Your task to perform on an android device: Empty the shopping cart on newegg.com. Image 0: 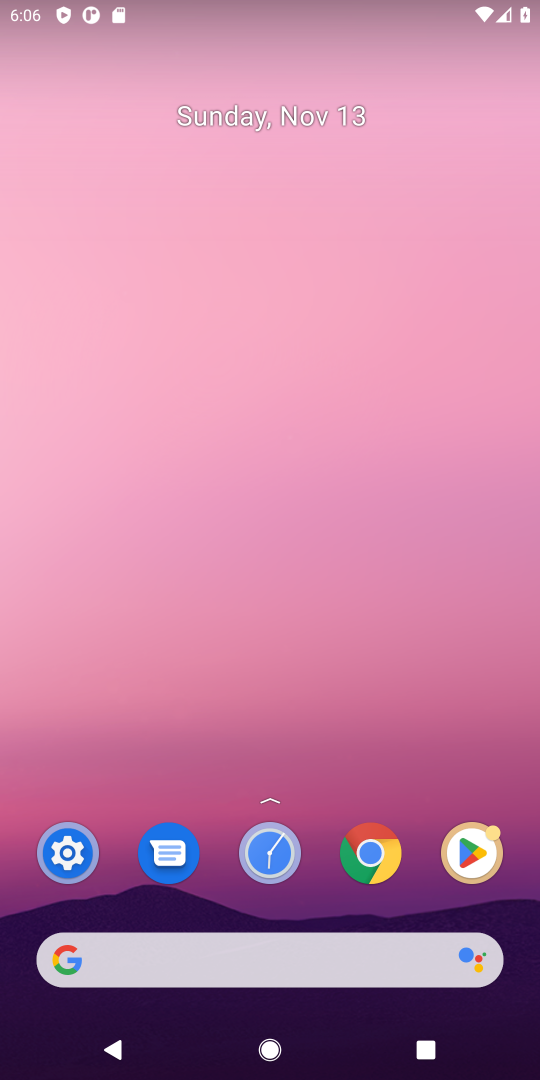
Step 0: press home button
Your task to perform on an android device: Empty the shopping cart on newegg.com. Image 1: 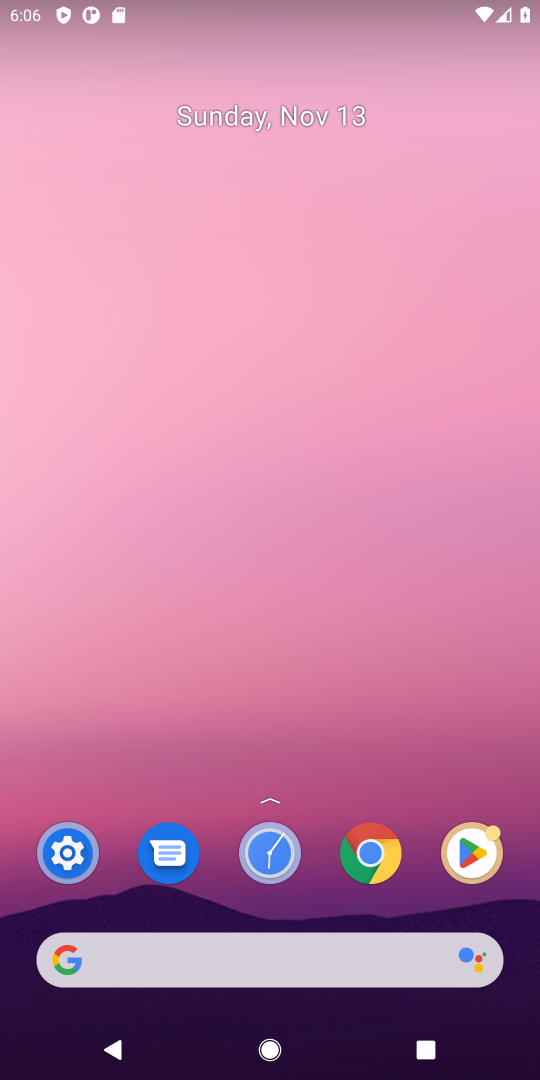
Step 1: click (105, 957)
Your task to perform on an android device: Empty the shopping cart on newegg.com. Image 2: 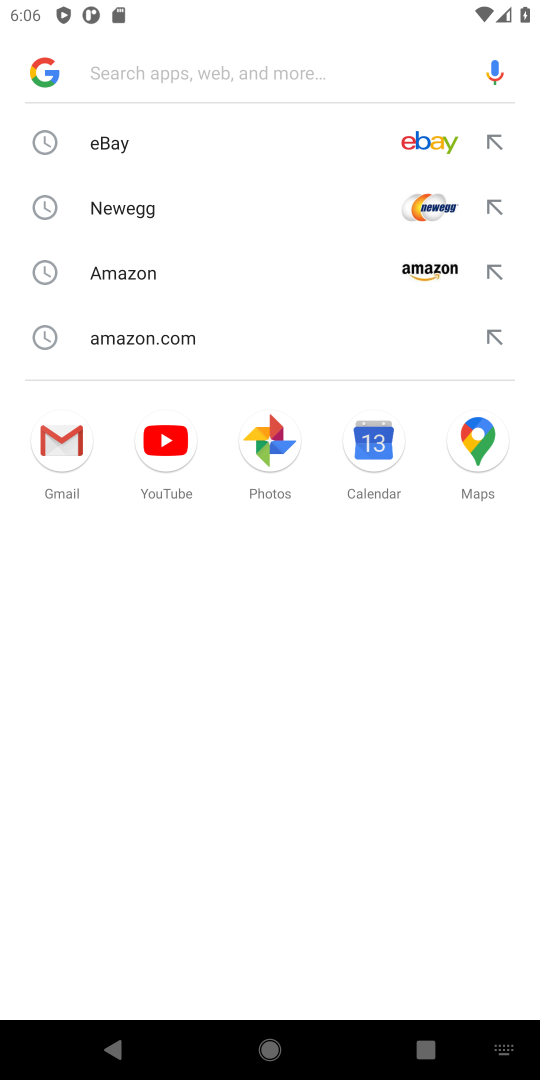
Step 2: type "newegg.com"
Your task to perform on an android device: Empty the shopping cart on newegg.com. Image 3: 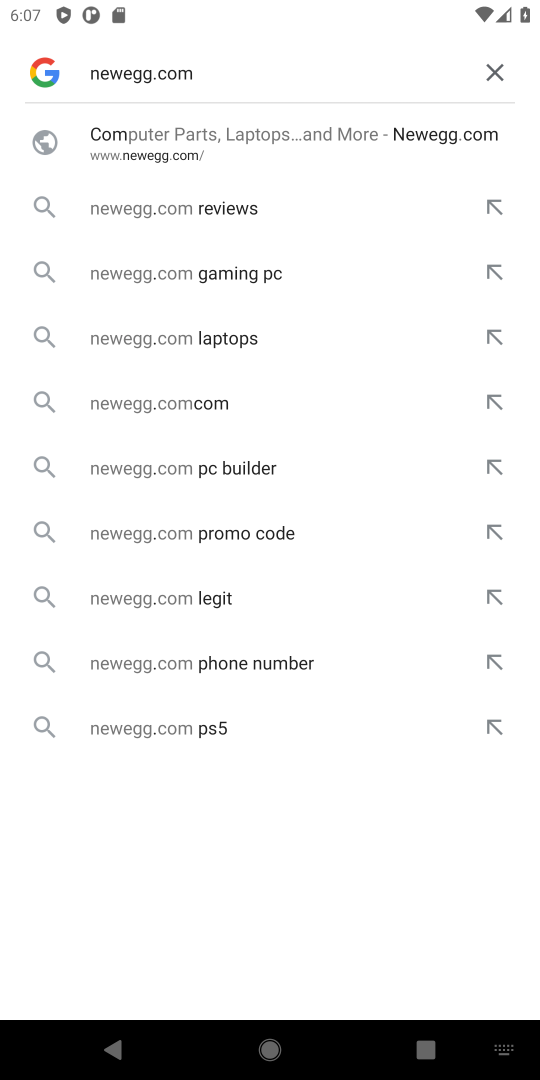
Step 3: press enter
Your task to perform on an android device: Empty the shopping cart on newegg.com. Image 4: 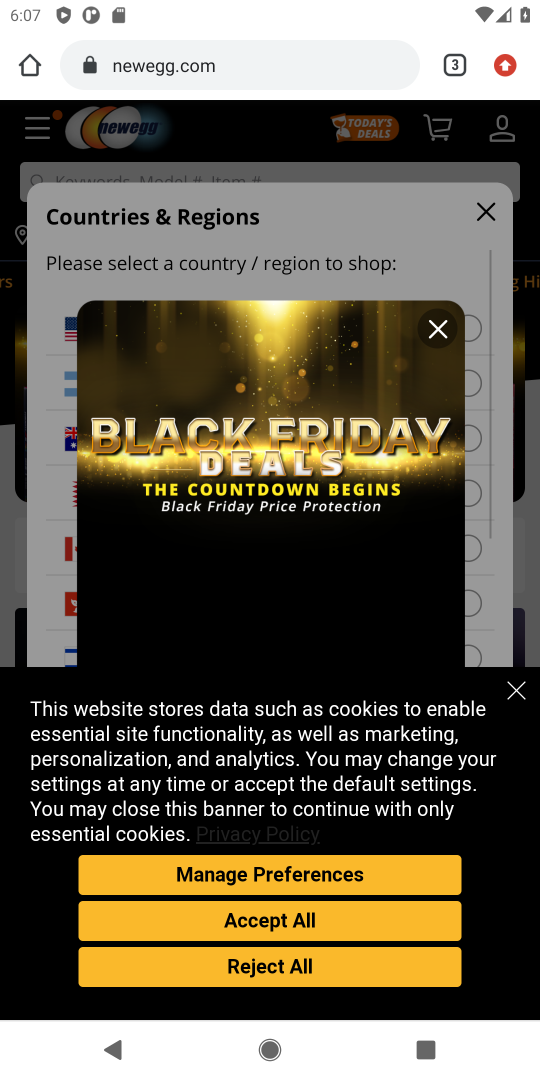
Step 4: click (306, 916)
Your task to perform on an android device: Empty the shopping cart on newegg.com. Image 5: 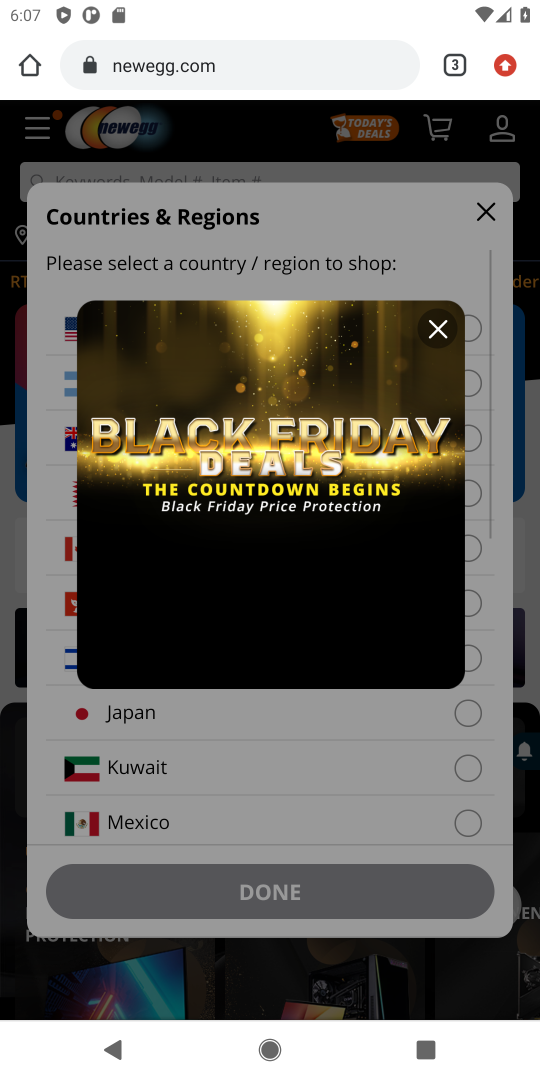
Step 5: click (486, 211)
Your task to perform on an android device: Empty the shopping cart on newegg.com. Image 6: 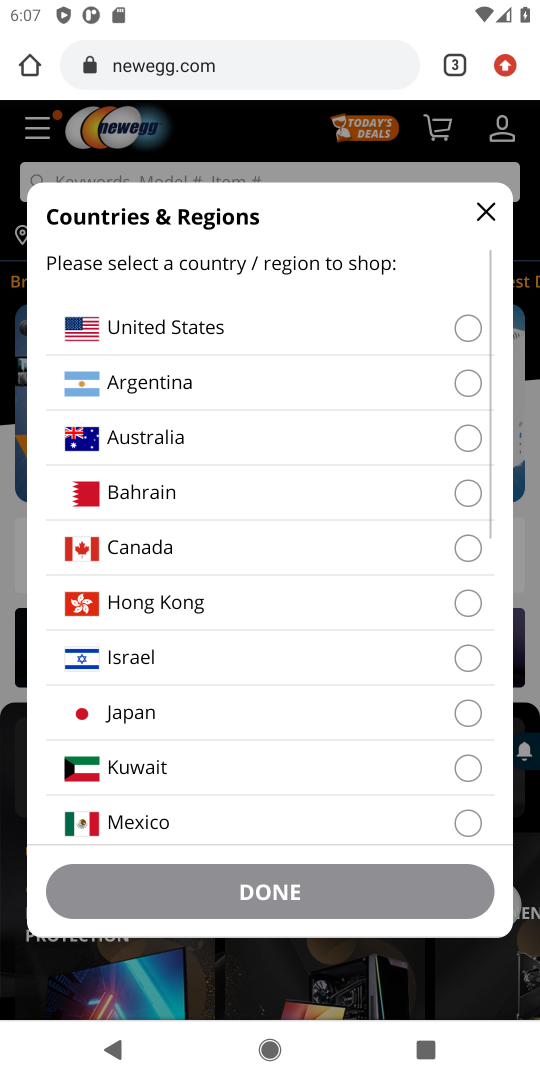
Step 6: click (493, 210)
Your task to perform on an android device: Empty the shopping cart on newegg.com. Image 7: 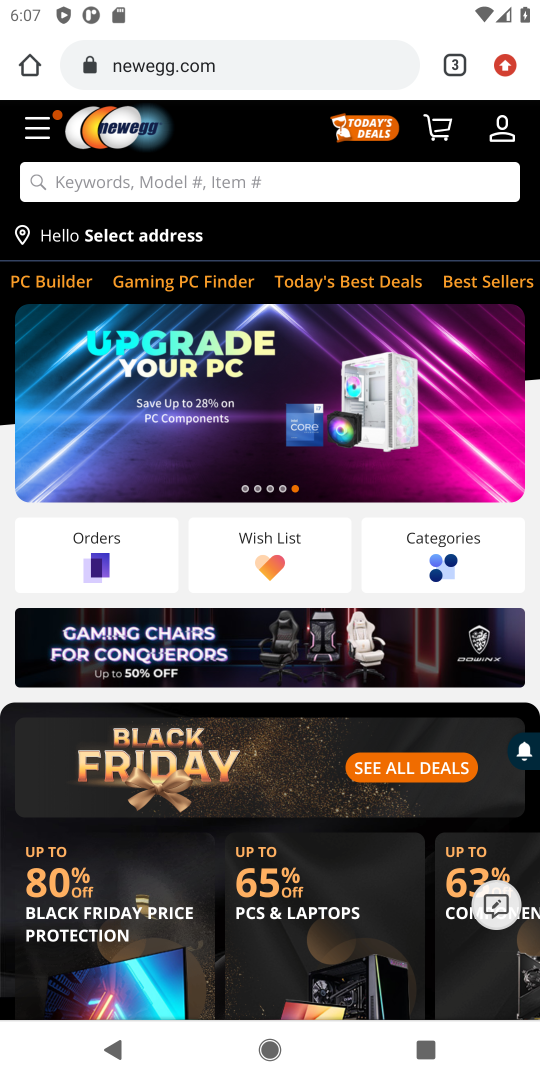
Step 7: click (446, 140)
Your task to perform on an android device: Empty the shopping cart on newegg.com. Image 8: 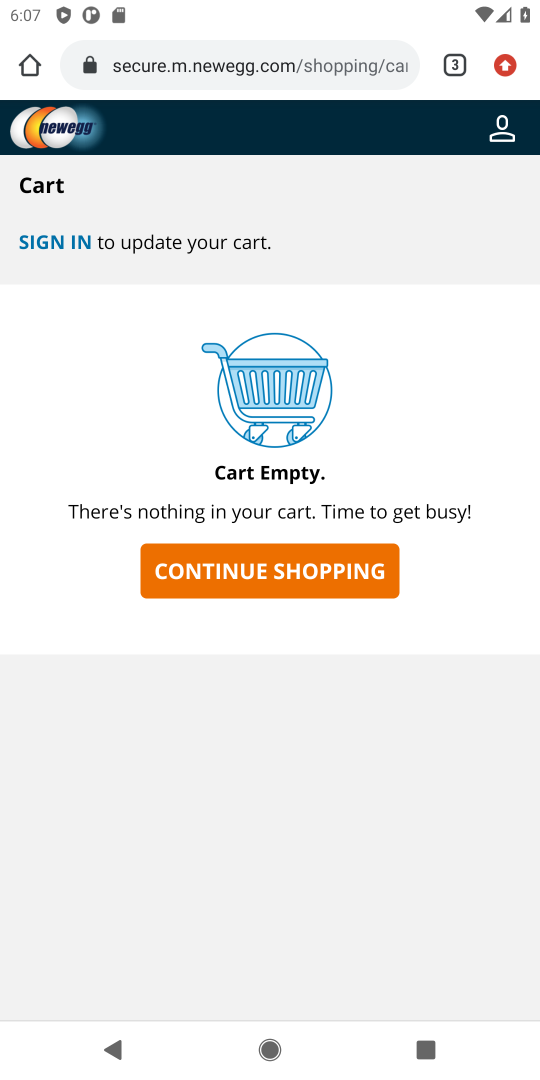
Step 8: task complete